Your task to perform on an android device: change alarm snooze length Image 0: 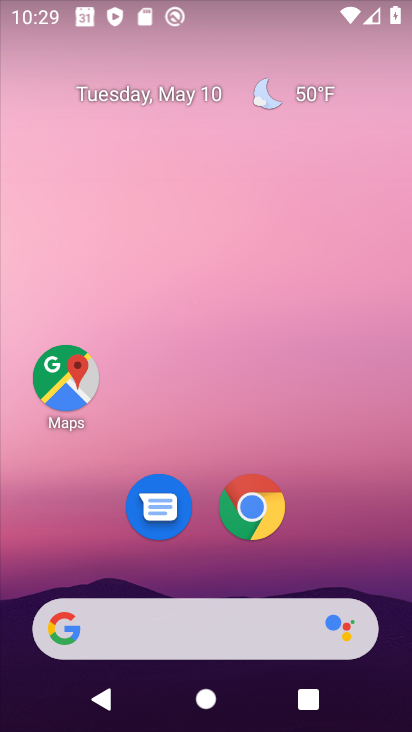
Step 0: drag from (340, 544) to (344, 169)
Your task to perform on an android device: change alarm snooze length Image 1: 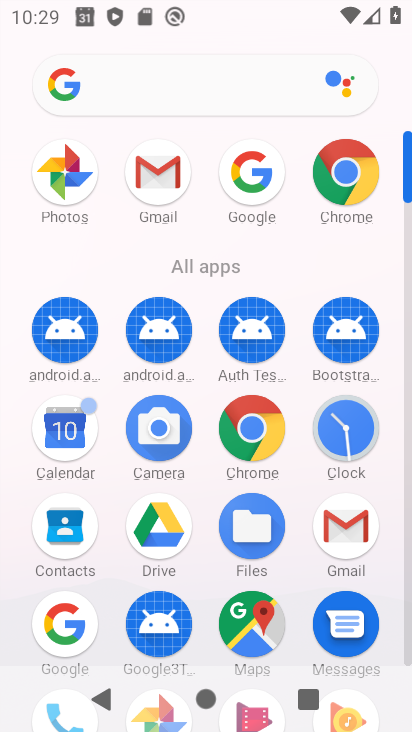
Step 1: drag from (343, 495) to (282, 168)
Your task to perform on an android device: change alarm snooze length Image 2: 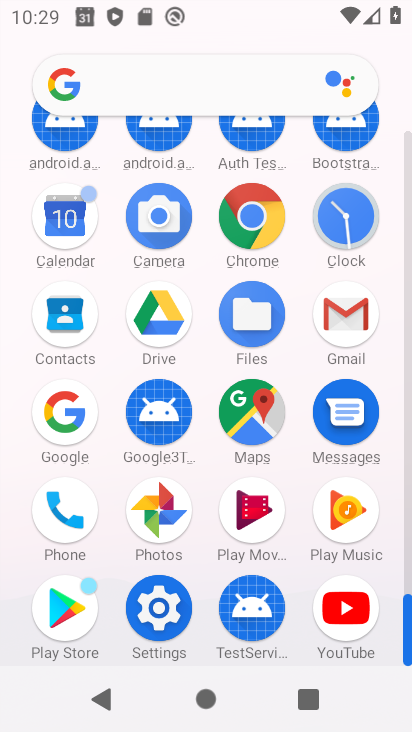
Step 2: click (335, 206)
Your task to perform on an android device: change alarm snooze length Image 3: 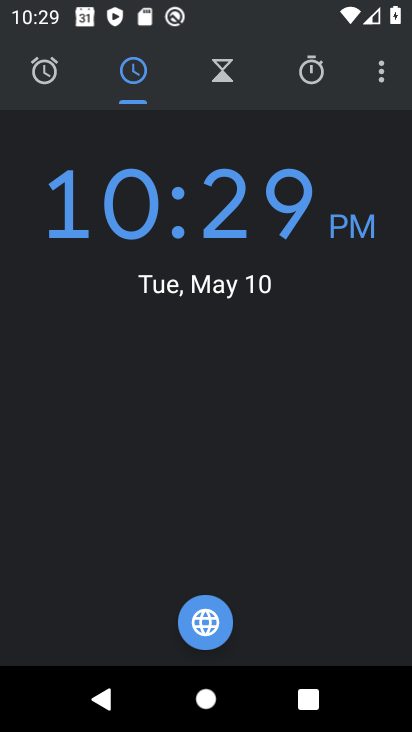
Step 3: click (383, 91)
Your task to perform on an android device: change alarm snooze length Image 4: 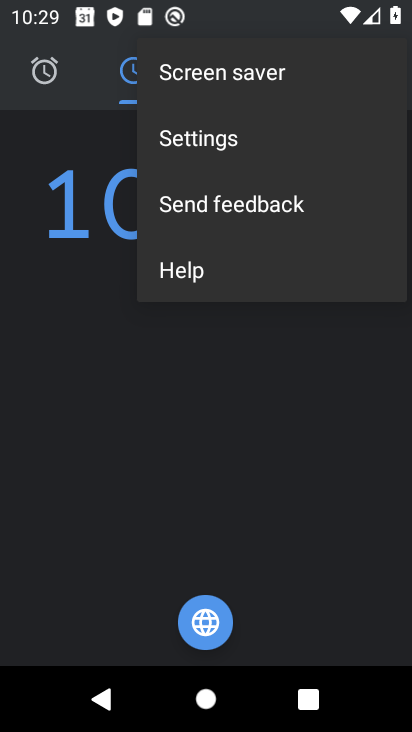
Step 4: click (259, 132)
Your task to perform on an android device: change alarm snooze length Image 5: 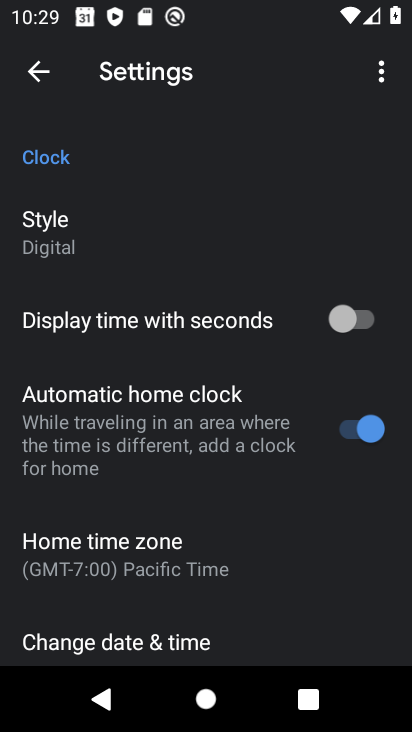
Step 5: drag from (286, 565) to (289, 222)
Your task to perform on an android device: change alarm snooze length Image 6: 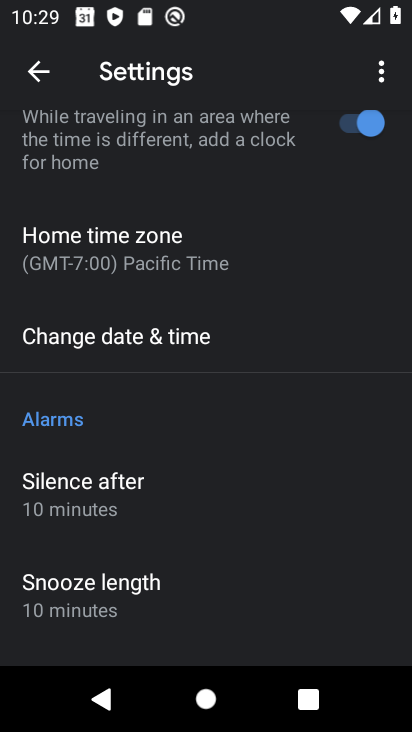
Step 6: drag from (194, 585) to (246, 423)
Your task to perform on an android device: change alarm snooze length Image 7: 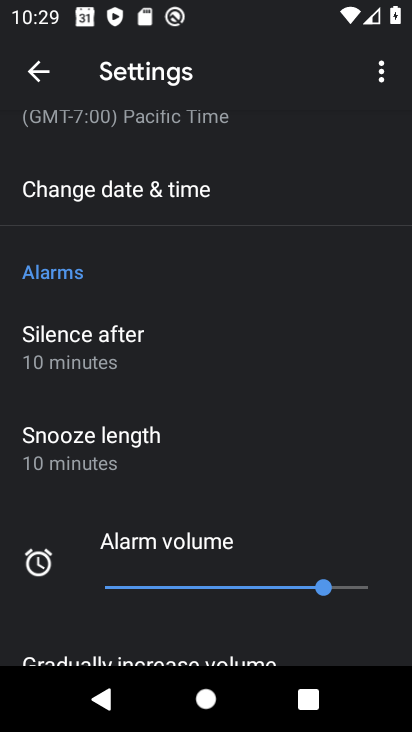
Step 7: click (168, 437)
Your task to perform on an android device: change alarm snooze length Image 8: 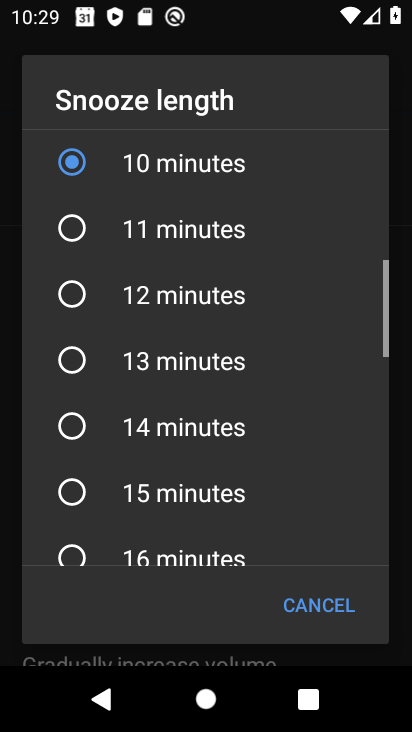
Step 8: click (135, 223)
Your task to perform on an android device: change alarm snooze length Image 9: 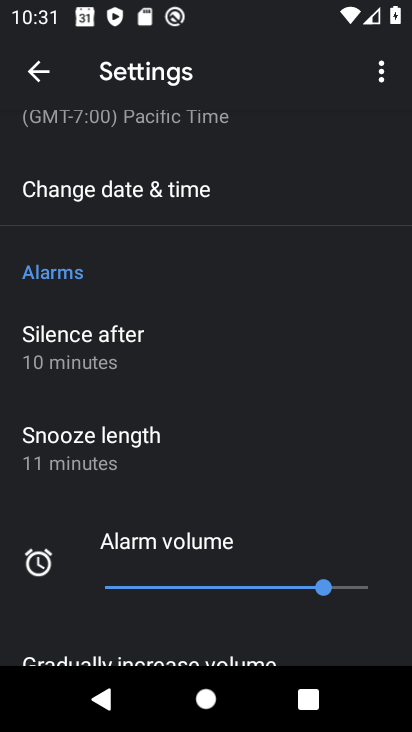
Step 9: task complete